Your task to perform on an android device: Open Reddit.com Image 0: 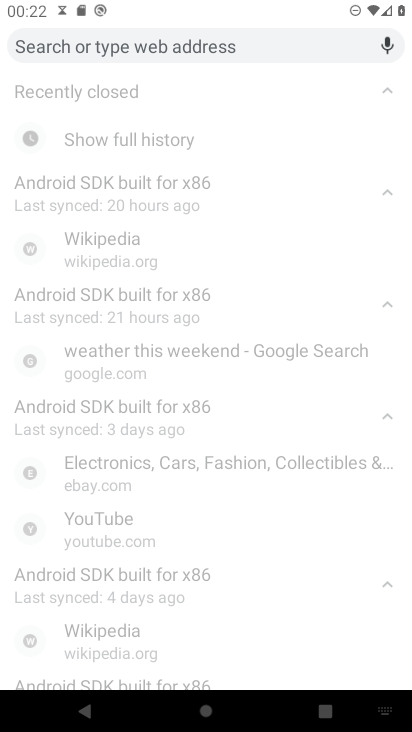
Step 0: press home button
Your task to perform on an android device: Open Reddit.com Image 1: 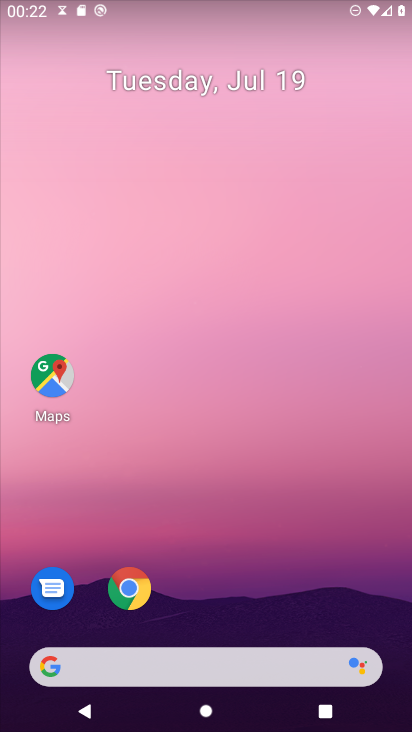
Step 1: click (47, 665)
Your task to perform on an android device: Open Reddit.com Image 2: 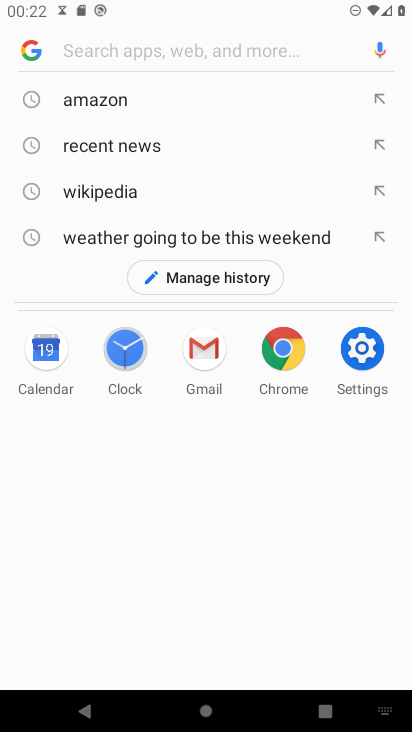
Step 2: type " Reddit.com"
Your task to perform on an android device: Open Reddit.com Image 3: 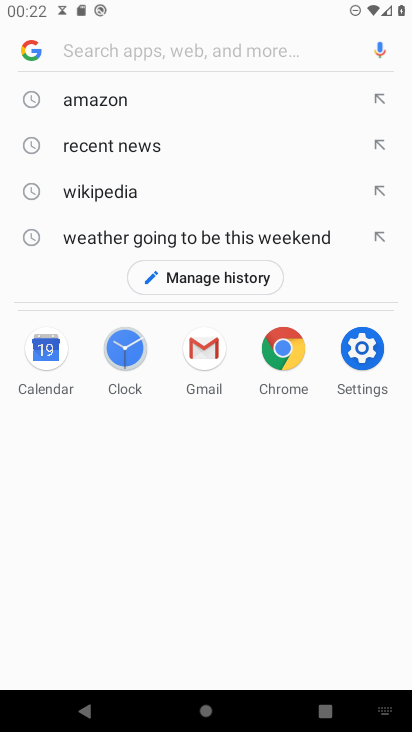
Step 3: click (120, 51)
Your task to perform on an android device: Open Reddit.com Image 4: 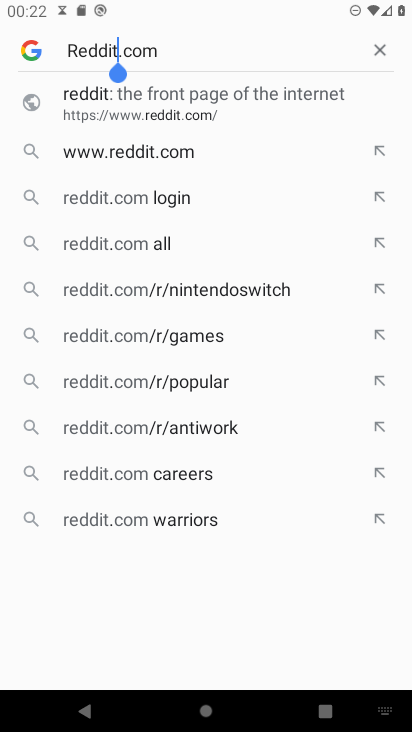
Step 4: press enter
Your task to perform on an android device: Open Reddit.com Image 5: 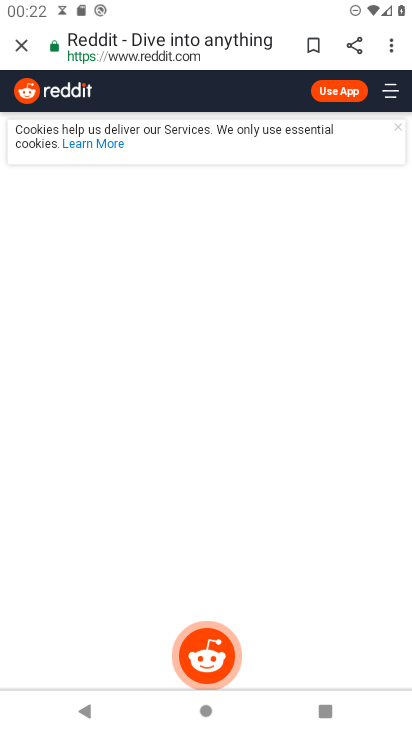
Step 5: task complete